Your task to perform on an android device: manage bookmarks in the chrome app Image 0: 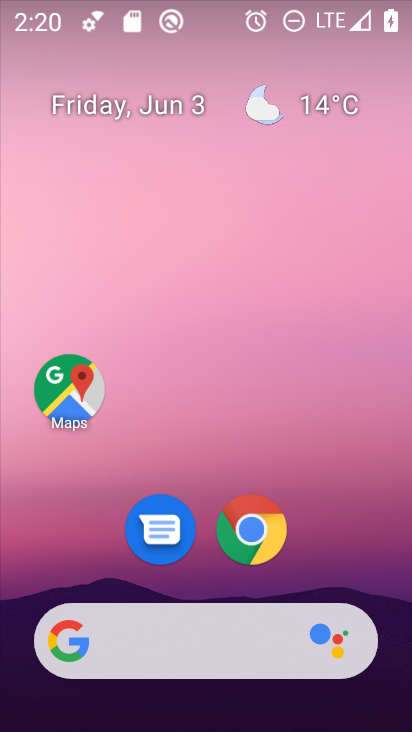
Step 0: drag from (375, 584) to (365, 263)
Your task to perform on an android device: manage bookmarks in the chrome app Image 1: 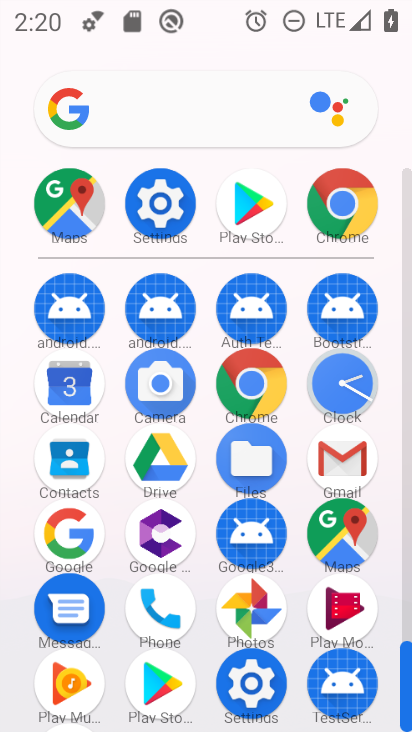
Step 1: click (269, 386)
Your task to perform on an android device: manage bookmarks in the chrome app Image 2: 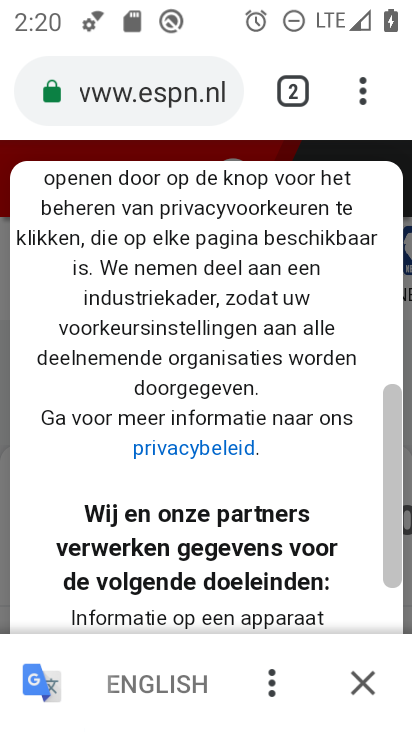
Step 2: click (365, 96)
Your task to perform on an android device: manage bookmarks in the chrome app Image 3: 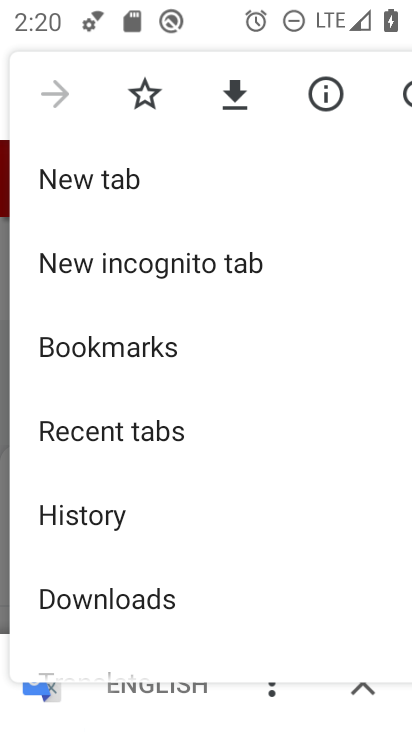
Step 3: drag from (324, 479) to (331, 310)
Your task to perform on an android device: manage bookmarks in the chrome app Image 4: 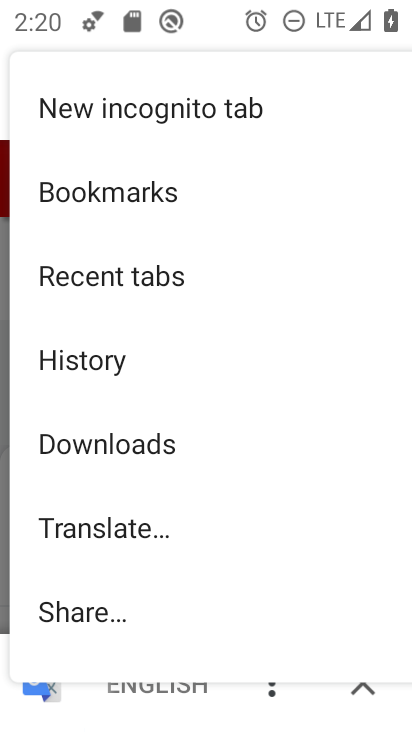
Step 4: drag from (281, 573) to (279, 412)
Your task to perform on an android device: manage bookmarks in the chrome app Image 5: 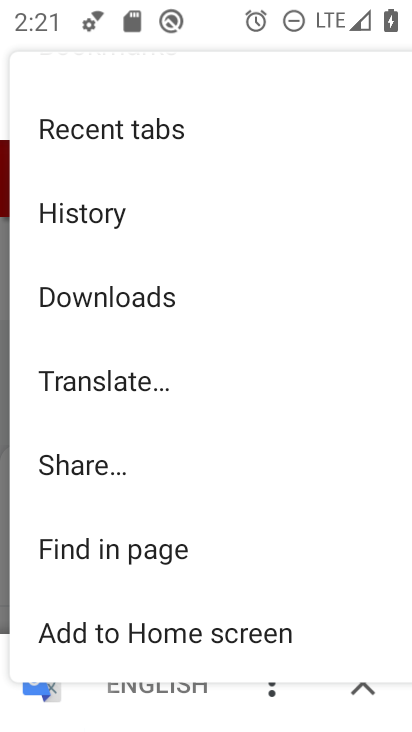
Step 5: drag from (309, 519) to (318, 370)
Your task to perform on an android device: manage bookmarks in the chrome app Image 6: 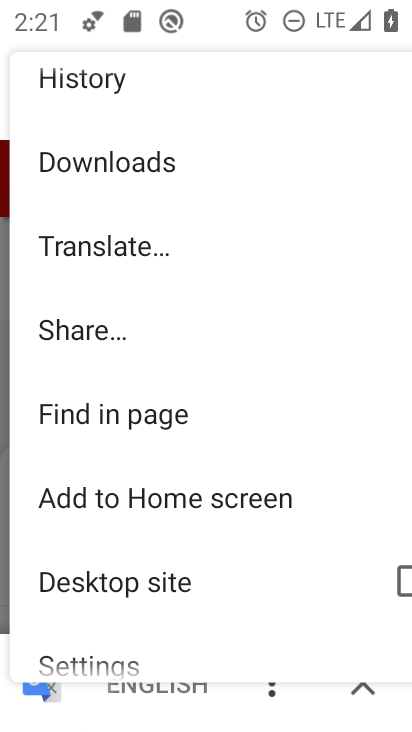
Step 6: drag from (313, 277) to (316, 440)
Your task to perform on an android device: manage bookmarks in the chrome app Image 7: 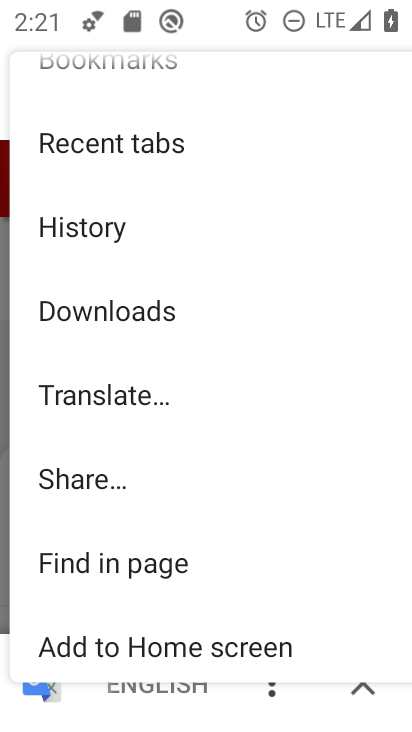
Step 7: drag from (298, 306) to (297, 432)
Your task to perform on an android device: manage bookmarks in the chrome app Image 8: 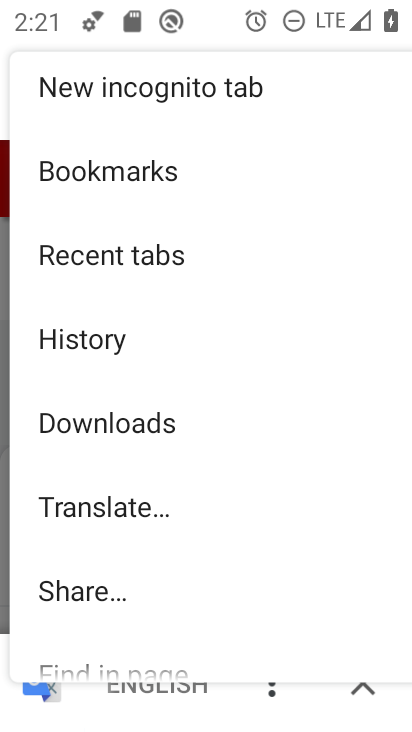
Step 8: drag from (277, 267) to (284, 386)
Your task to perform on an android device: manage bookmarks in the chrome app Image 9: 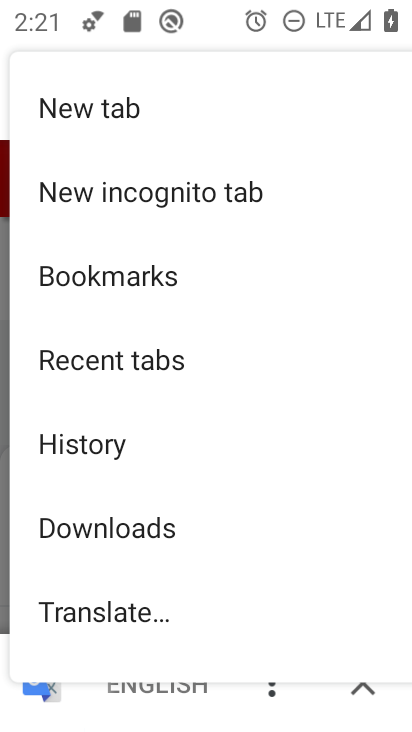
Step 9: drag from (268, 253) to (271, 354)
Your task to perform on an android device: manage bookmarks in the chrome app Image 10: 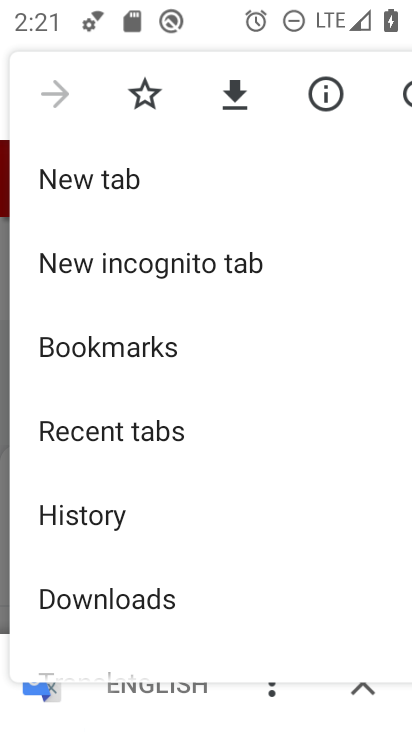
Step 10: click (134, 360)
Your task to perform on an android device: manage bookmarks in the chrome app Image 11: 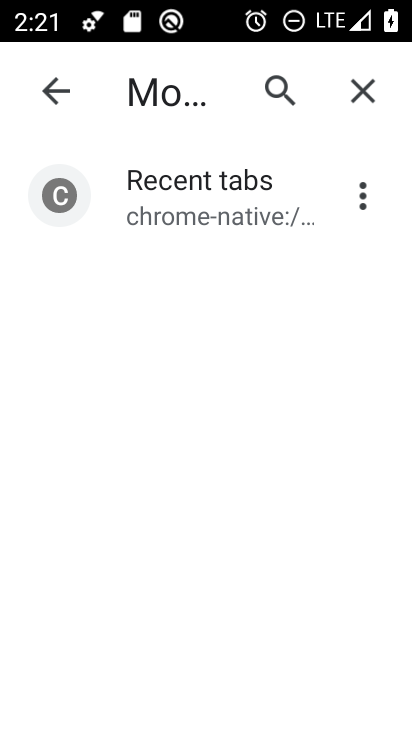
Step 11: click (225, 194)
Your task to perform on an android device: manage bookmarks in the chrome app Image 12: 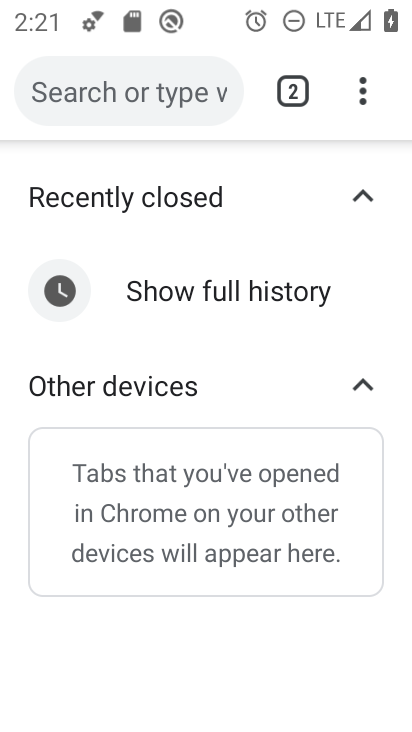
Step 12: task complete